Your task to perform on an android device: Open Google Chrome and open the bookmarks view Image 0: 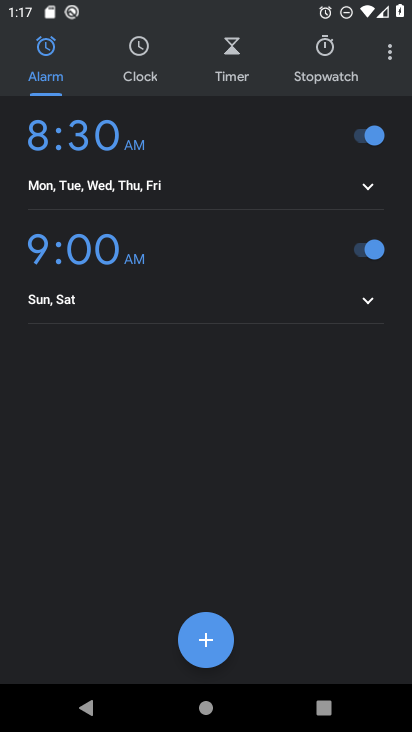
Step 0: press home button
Your task to perform on an android device: Open Google Chrome and open the bookmarks view Image 1: 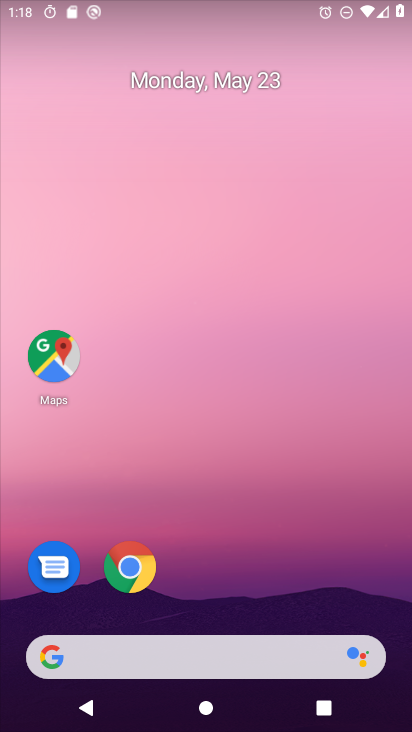
Step 1: click (132, 559)
Your task to perform on an android device: Open Google Chrome and open the bookmarks view Image 2: 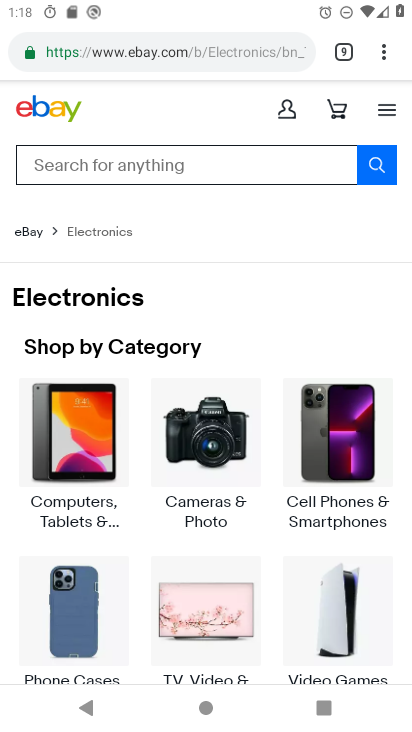
Step 2: click (389, 50)
Your task to perform on an android device: Open Google Chrome and open the bookmarks view Image 3: 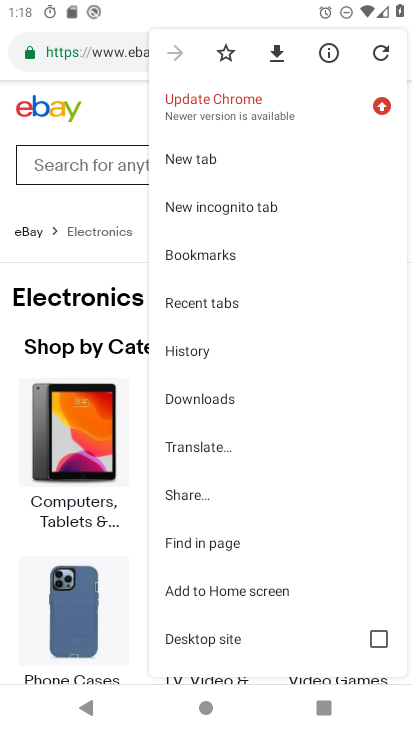
Step 3: click (218, 252)
Your task to perform on an android device: Open Google Chrome and open the bookmarks view Image 4: 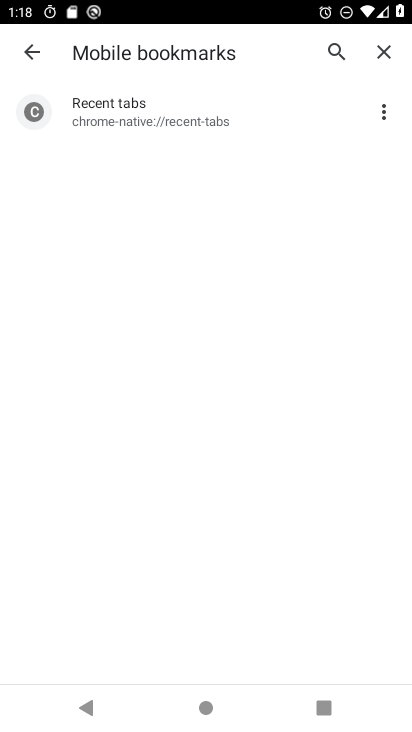
Step 4: task complete